Your task to perform on an android device: snooze an email in the gmail app Image 0: 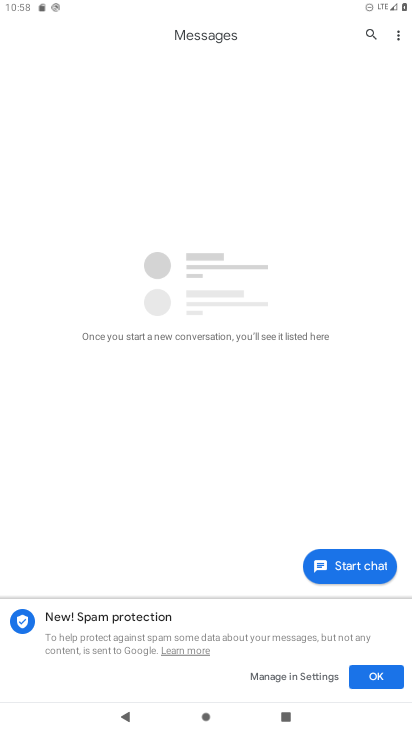
Step 0: press home button
Your task to perform on an android device: snooze an email in the gmail app Image 1: 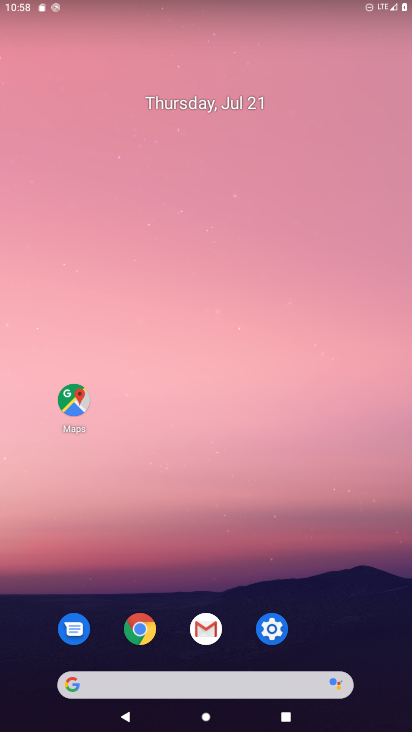
Step 1: click (212, 627)
Your task to perform on an android device: snooze an email in the gmail app Image 2: 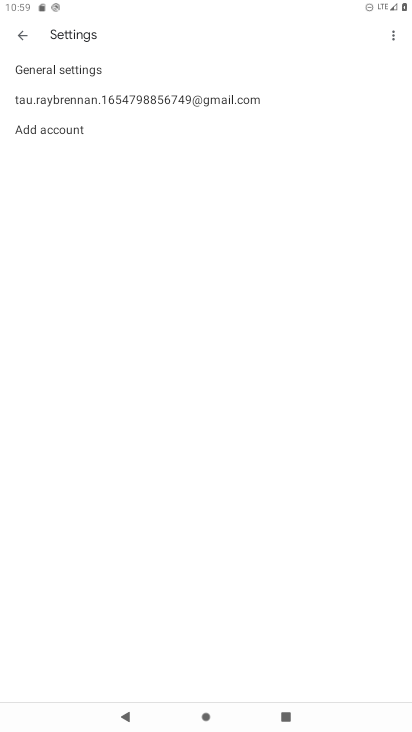
Step 2: click (18, 43)
Your task to perform on an android device: snooze an email in the gmail app Image 3: 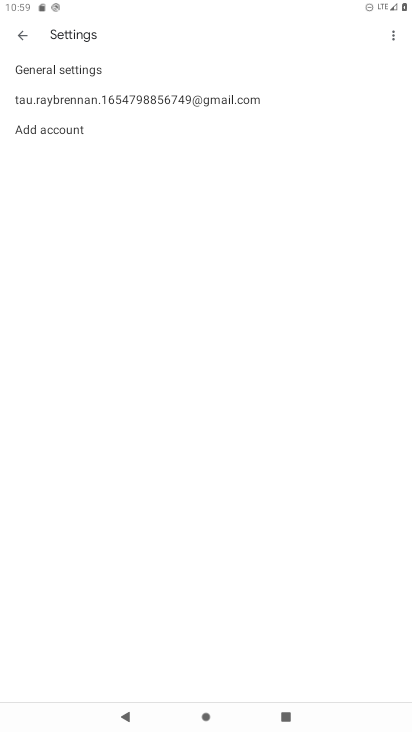
Step 3: click (26, 40)
Your task to perform on an android device: snooze an email in the gmail app Image 4: 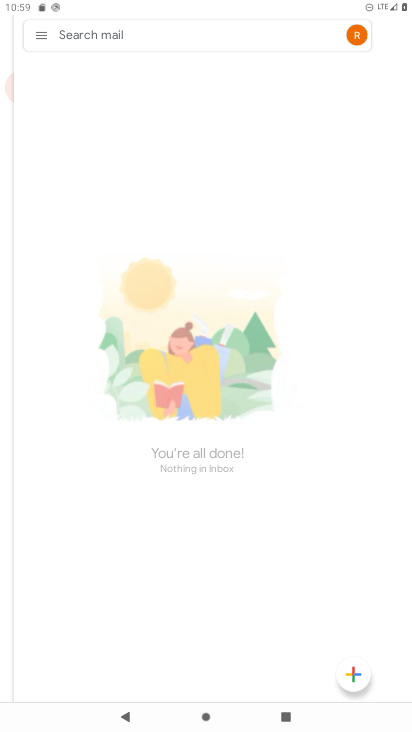
Step 4: click (77, 43)
Your task to perform on an android device: snooze an email in the gmail app Image 5: 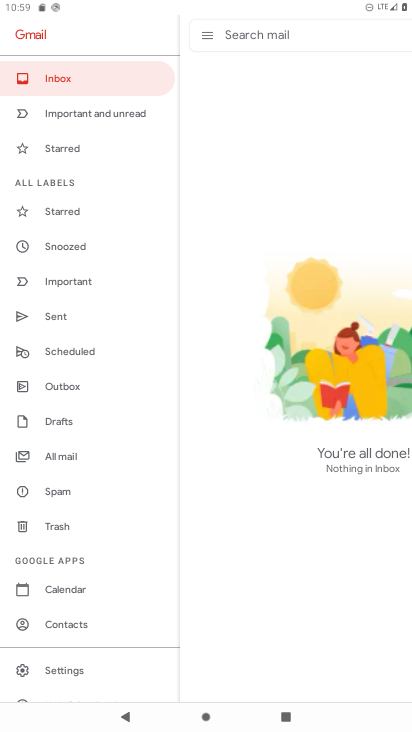
Step 5: click (89, 240)
Your task to perform on an android device: snooze an email in the gmail app Image 6: 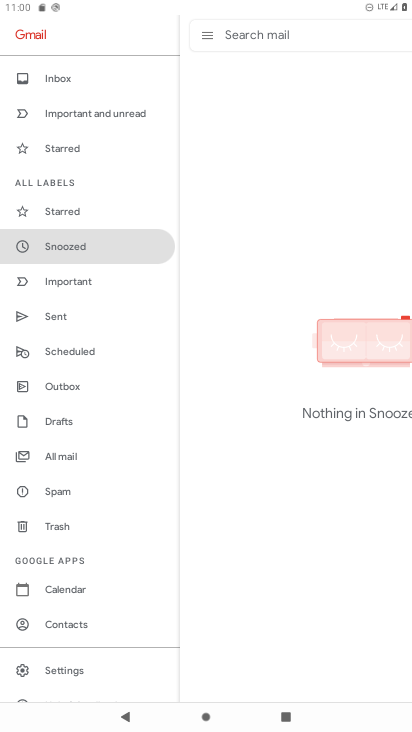
Step 6: task complete